Your task to perform on an android device: Check the weather Image 0: 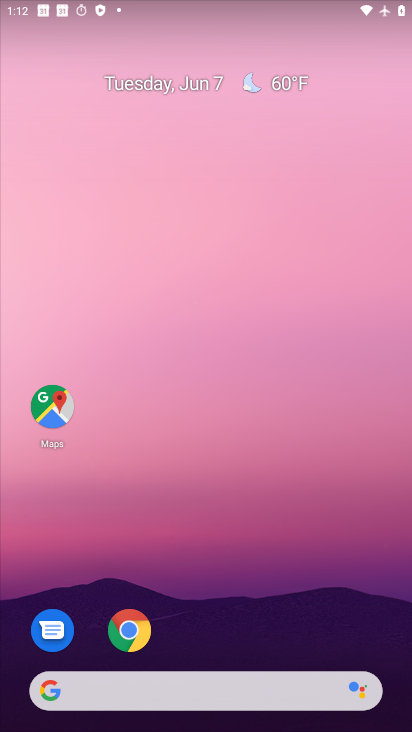
Step 0: drag from (347, 642) to (306, 76)
Your task to perform on an android device: Check the weather Image 1: 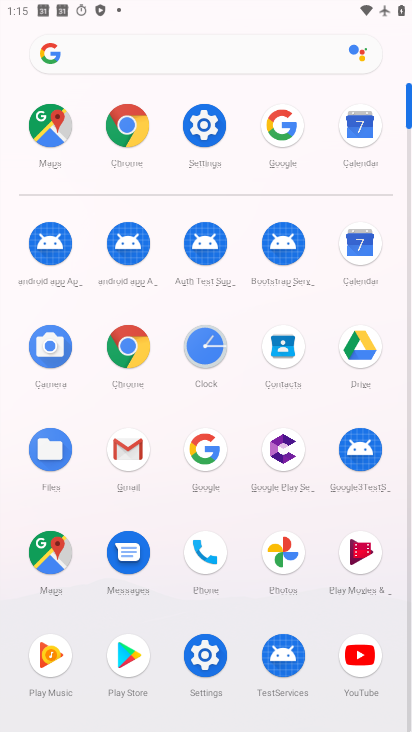
Step 1: click (202, 457)
Your task to perform on an android device: Check the weather Image 2: 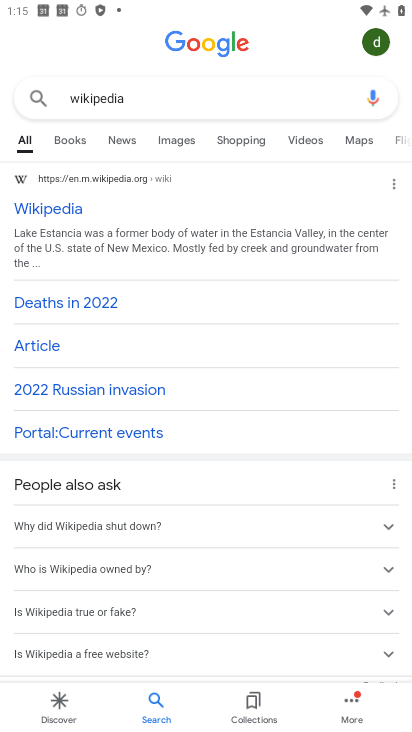
Step 2: press back button
Your task to perform on an android device: Check the weather Image 3: 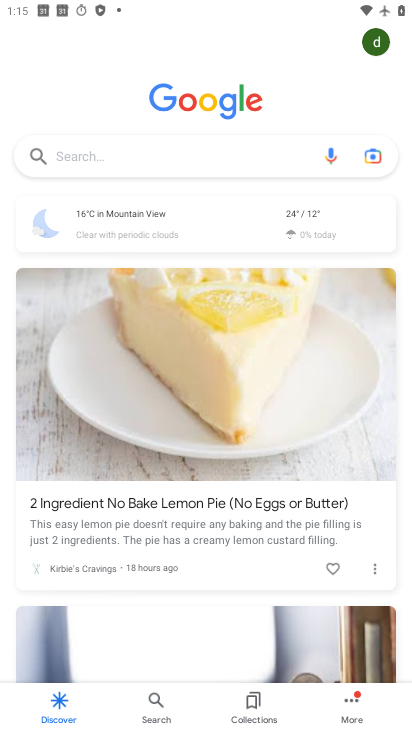
Step 3: click (108, 157)
Your task to perform on an android device: Check the weather Image 4: 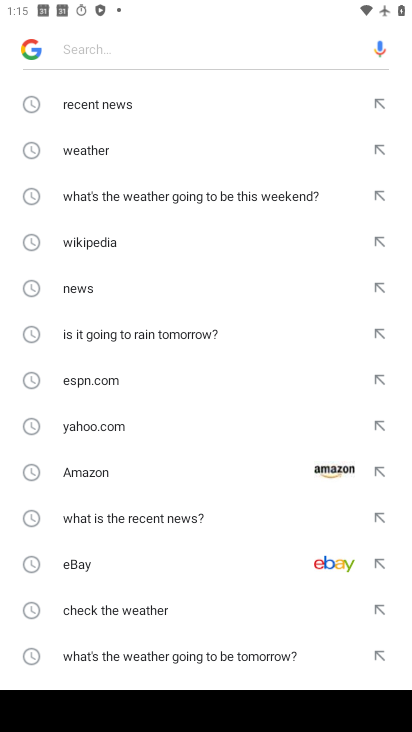
Step 4: click (112, 160)
Your task to perform on an android device: Check the weather Image 5: 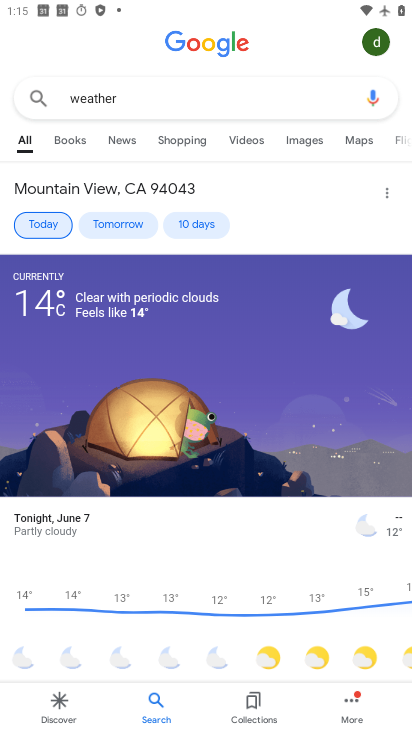
Step 5: task complete